Your task to perform on an android device: turn on airplane mode Image 0: 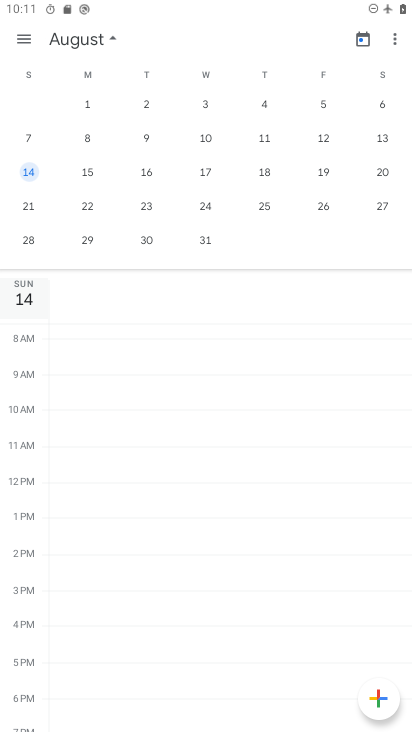
Step 0: press home button
Your task to perform on an android device: turn on airplane mode Image 1: 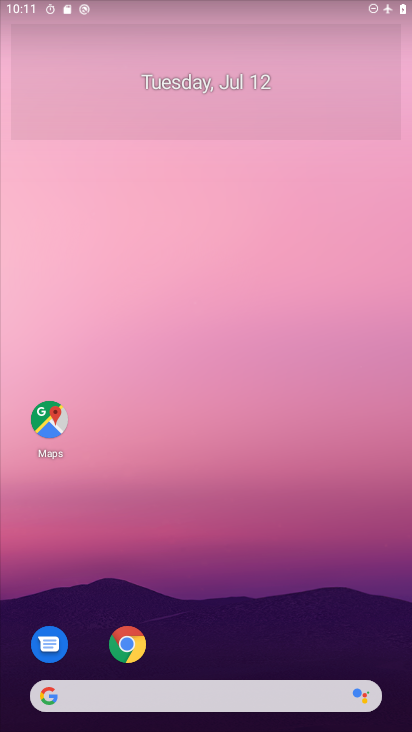
Step 1: drag from (228, 618) to (231, 61)
Your task to perform on an android device: turn on airplane mode Image 2: 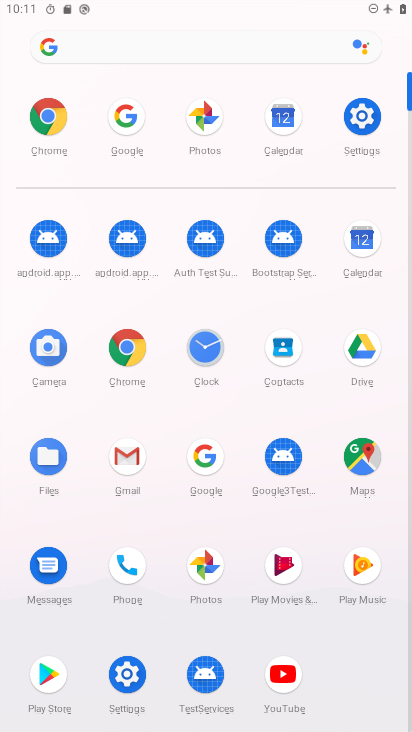
Step 2: click (373, 117)
Your task to perform on an android device: turn on airplane mode Image 3: 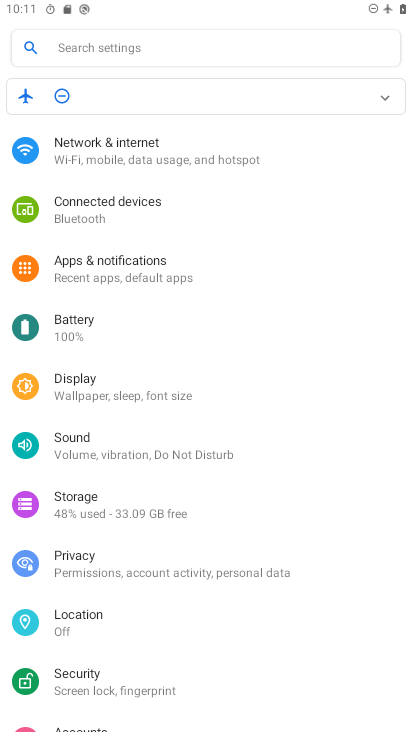
Step 3: click (210, 154)
Your task to perform on an android device: turn on airplane mode Image 4: 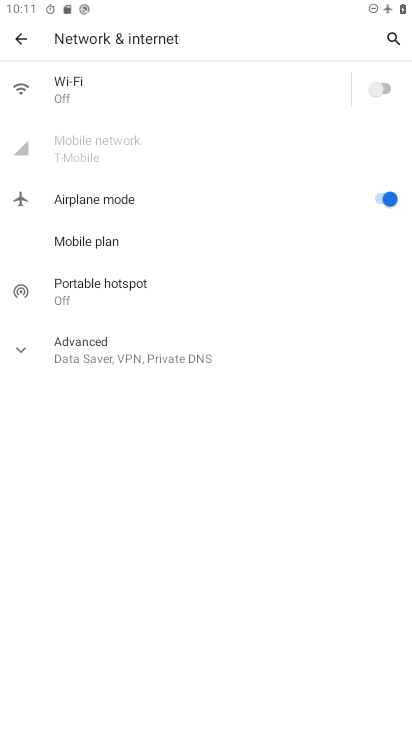
Step 4: task complete